Your task to perform on an android device: Play the last video I watched on Youtube Image 0: 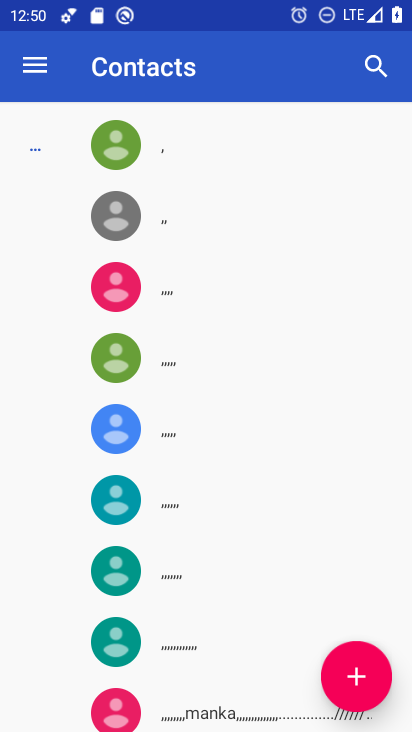
Step 0: press home button
Your task to perform on an android device: Play the last video I watched on Youtube Image 1: 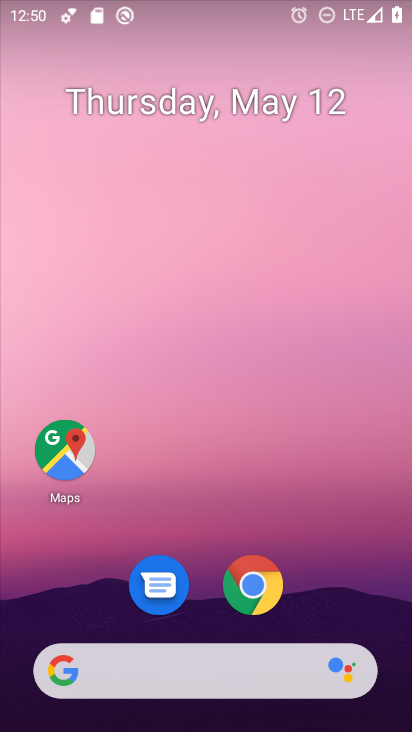
Step 1: drag from (352, 502) to (262, 70)
Your task to perform on an android device: Play the last video I watched on Youtube Image 2: 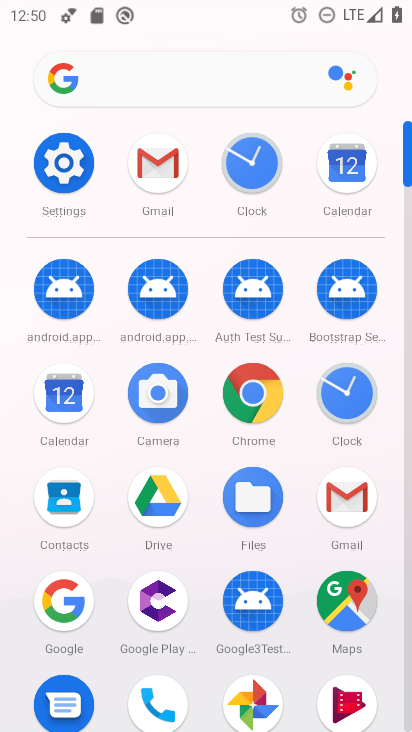
Step 2: drag from (301, 622) to (312, 344)
Your task to perform on an android device: Play the last video I watched on Youtube Image 3: 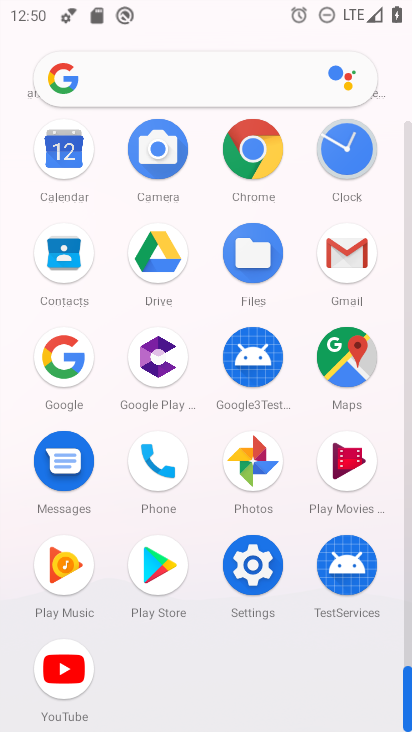
Step 3: click (64, 657)
Your task to perform on an android device: Play the last video I watched on Youtube Image 4: 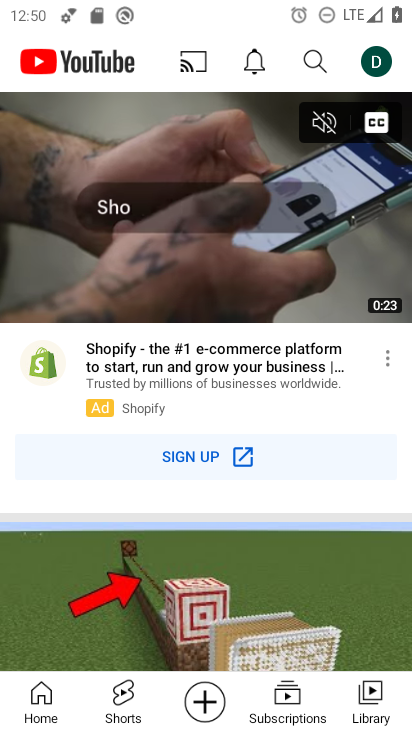
Step 4: click (374, 689)
Your task to perform on an android device: Play the last video I watched on Youtube Image 5: 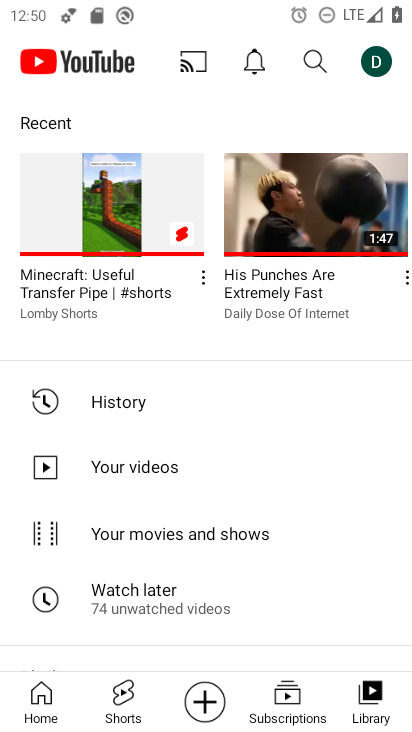
Step 5: click (142, 405)
Your task to perform on an android device: Play the last video I watched on Youtube Image 6: 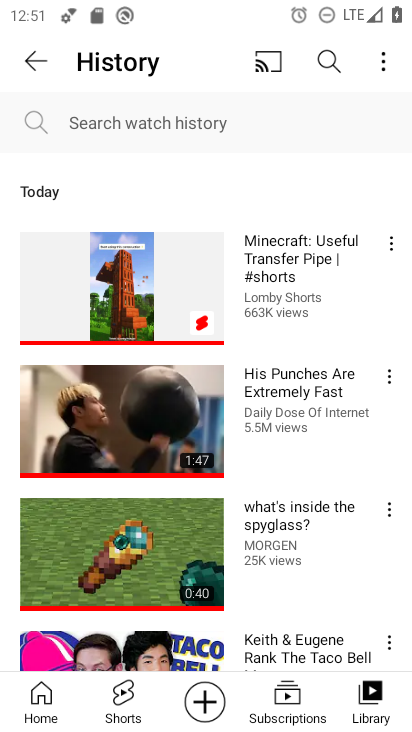
Step 6: click (127, 292)
Your task to perform on an android device: Play the last video I watched on Youtube Image 7: 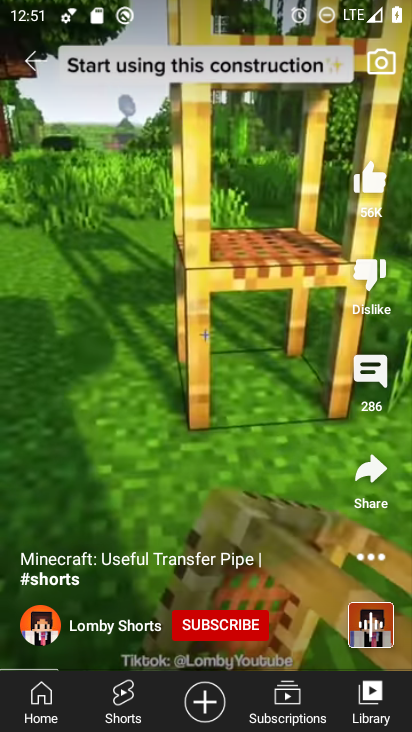
Step 7: task complete